Your task to perform on an android device: Do I have any events today? Image 0: 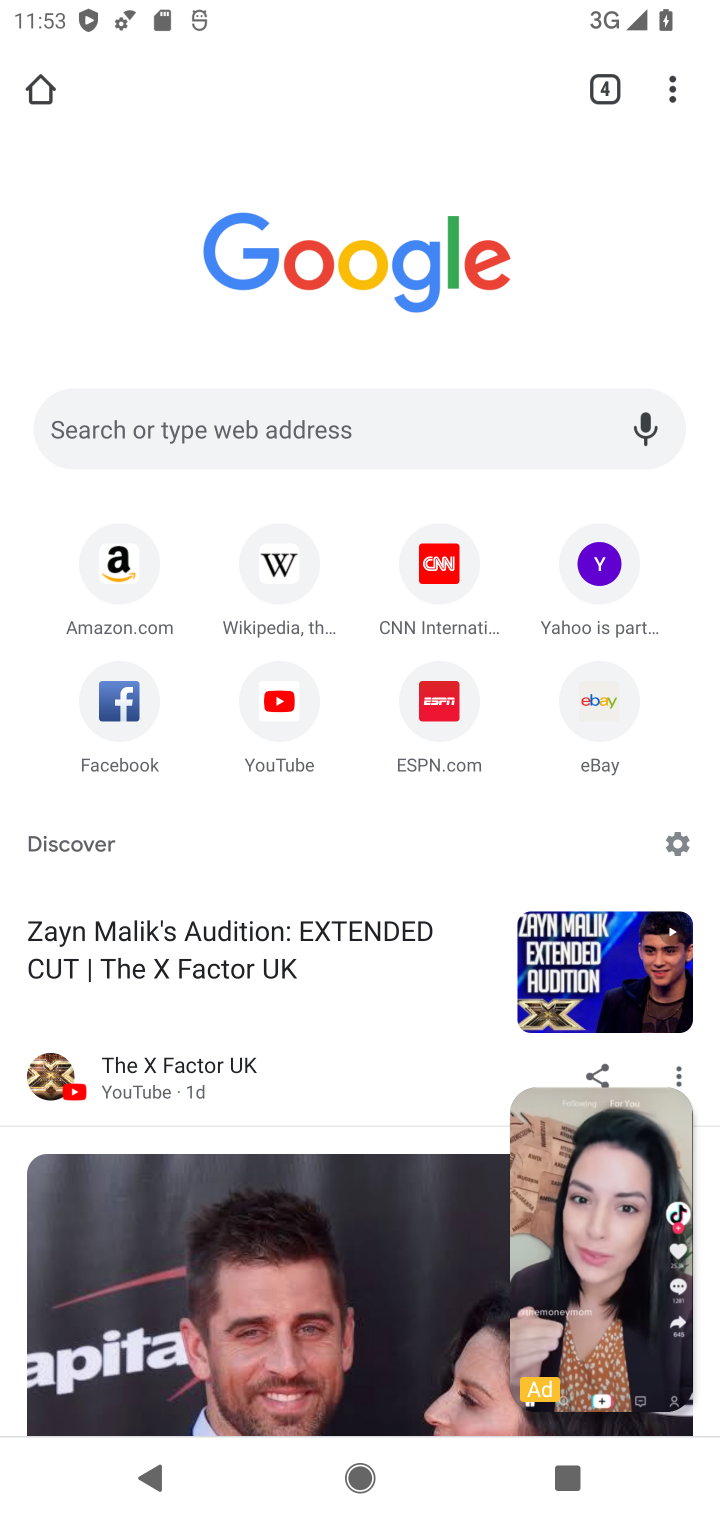
Step 0: click (664, 1205)
Your task to perform on an android device: Do I have any events today? Image 1: 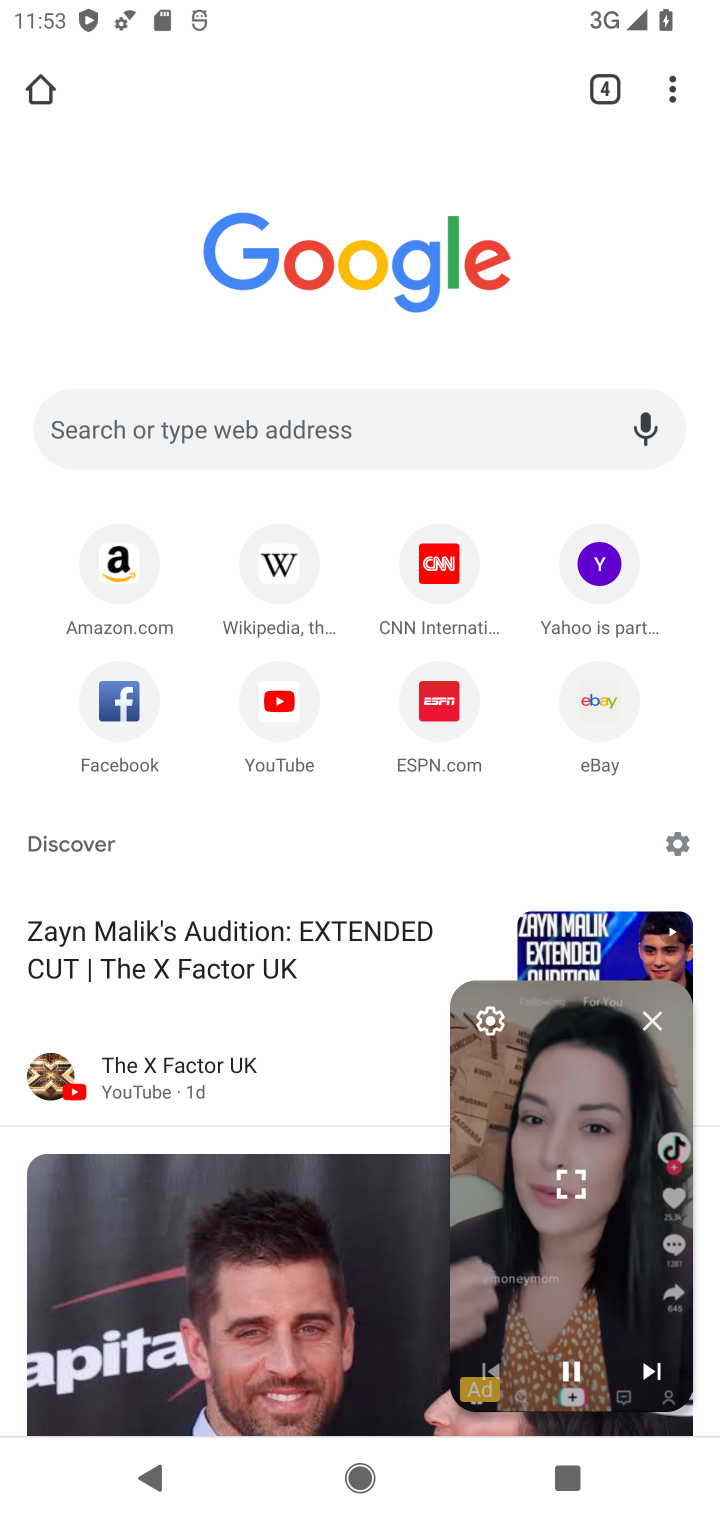
Step 1: click (649, 1014)
Your task to perform on an android device: Do I have any events today? Image 2: 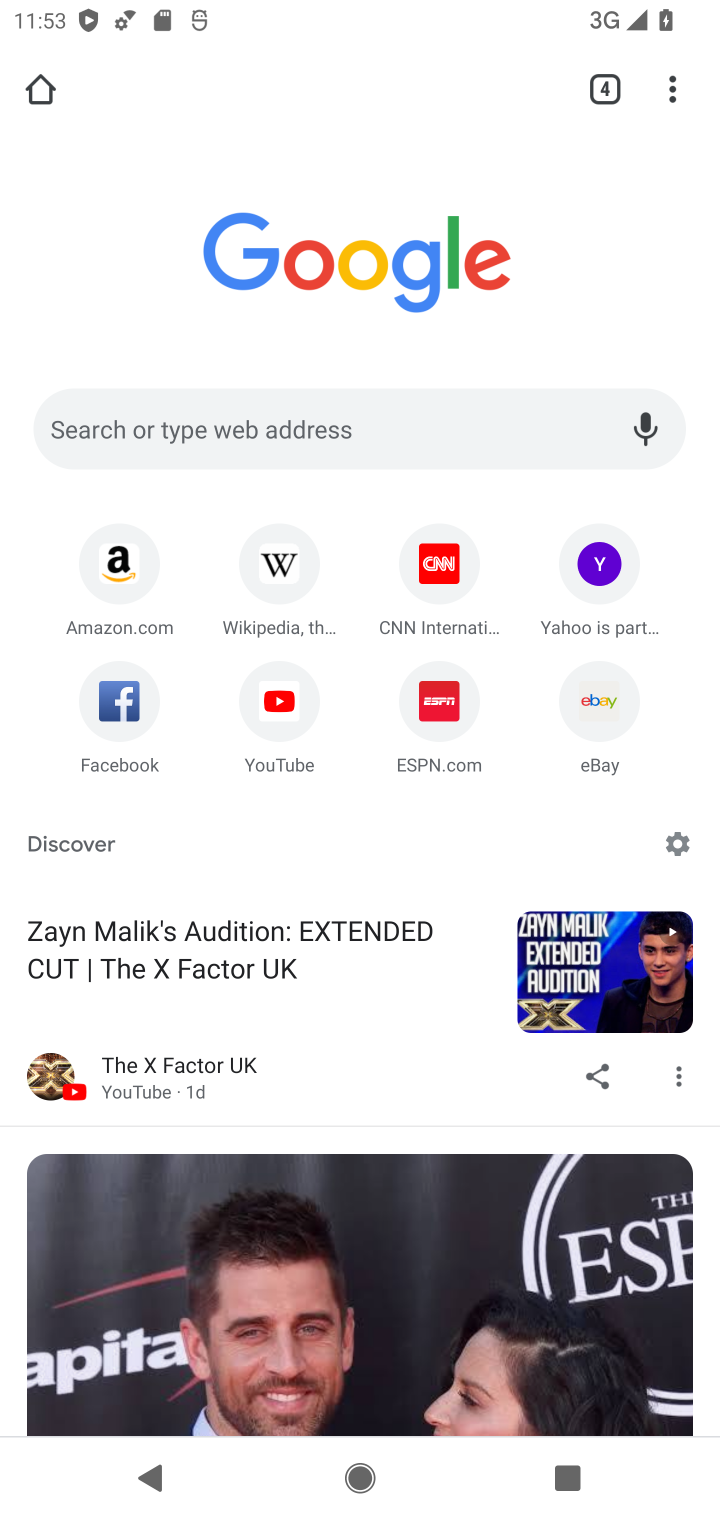
Step 2: press home button
Your task to perform on an android device: Do I have any events today? Image 3: 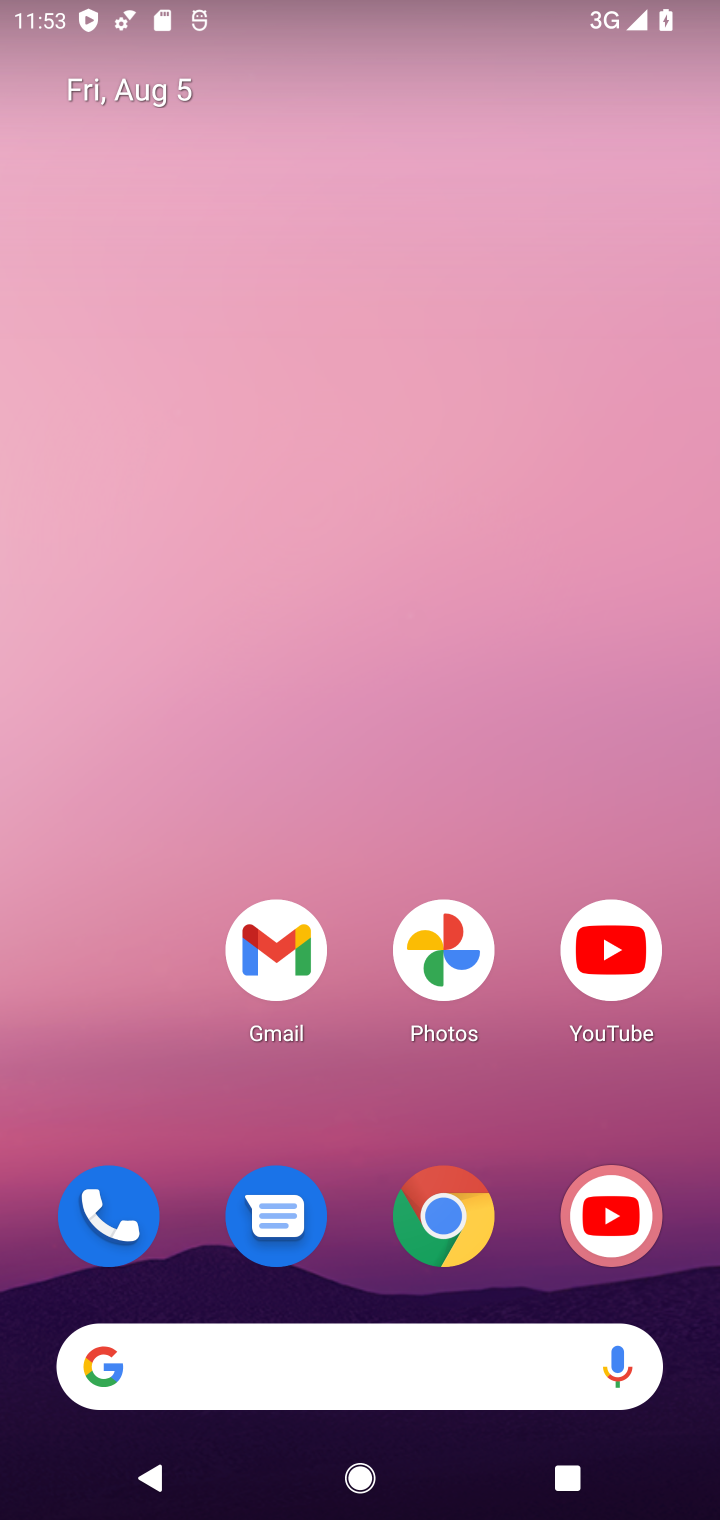
Step 3: drag from (400, 1350) to (362, 7)
Your task to perform on an android device: Do I have any events today? Image 4: 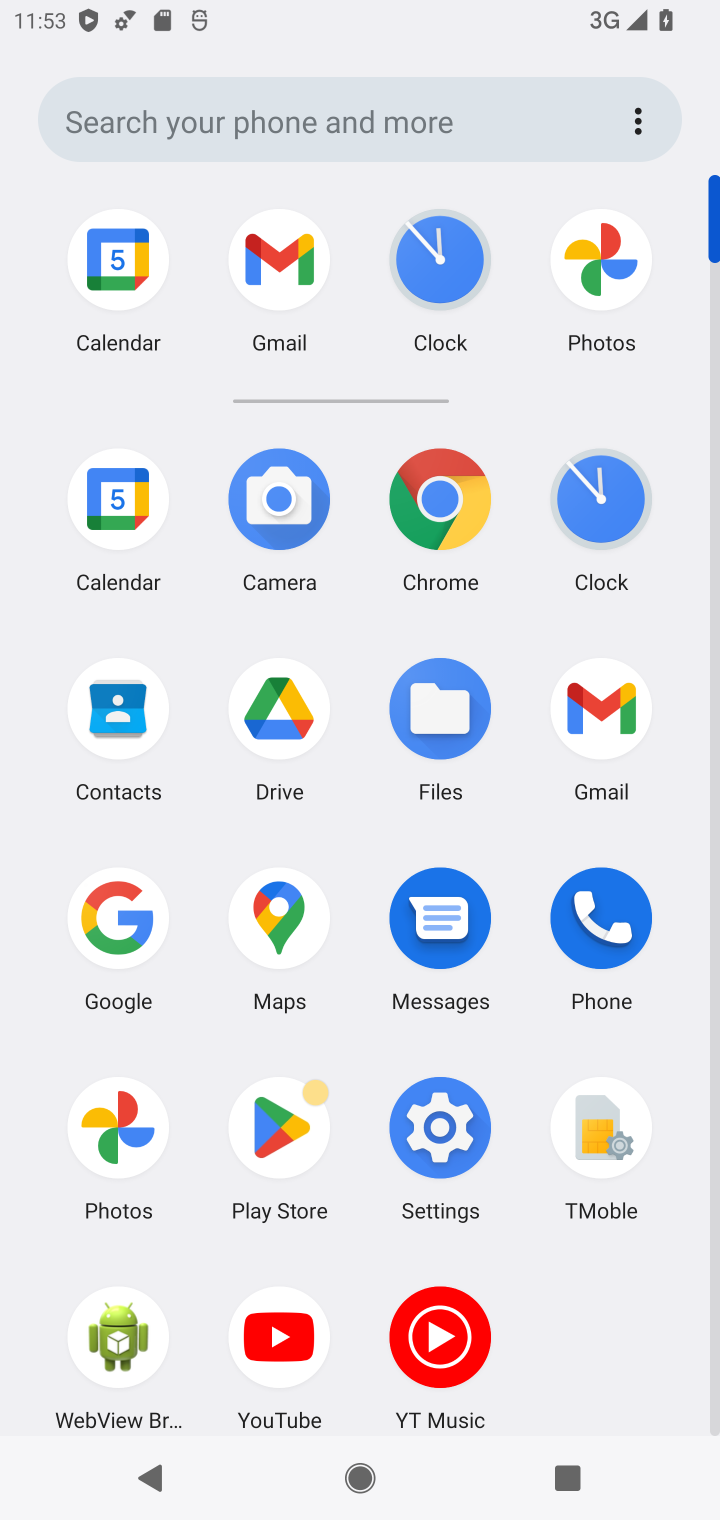
Step 4: click (103, 519)
Your task to perform on an android device: Do I have any events today? Image 5: 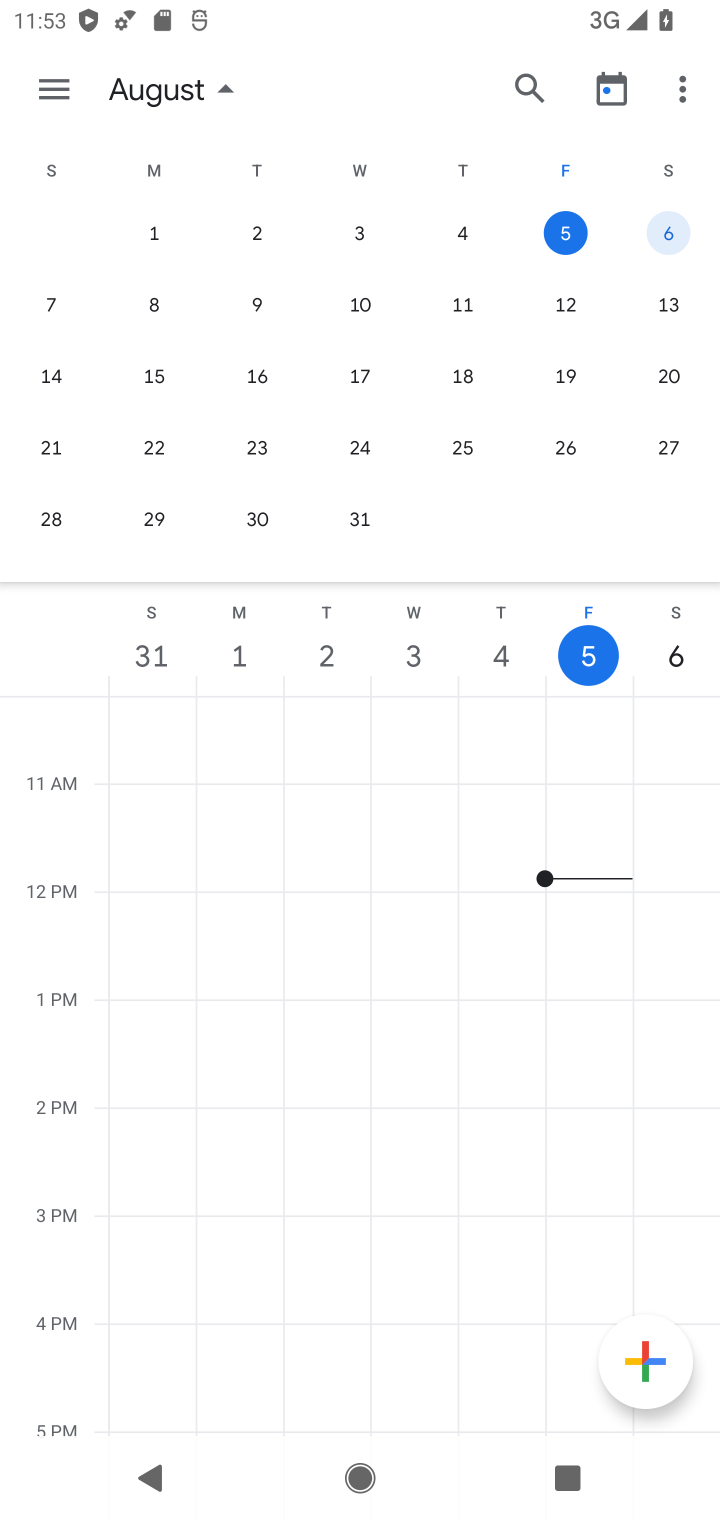
Step 5: click (577, 233)
Your task to perform on an android device: Do I have any events today? Image 6: 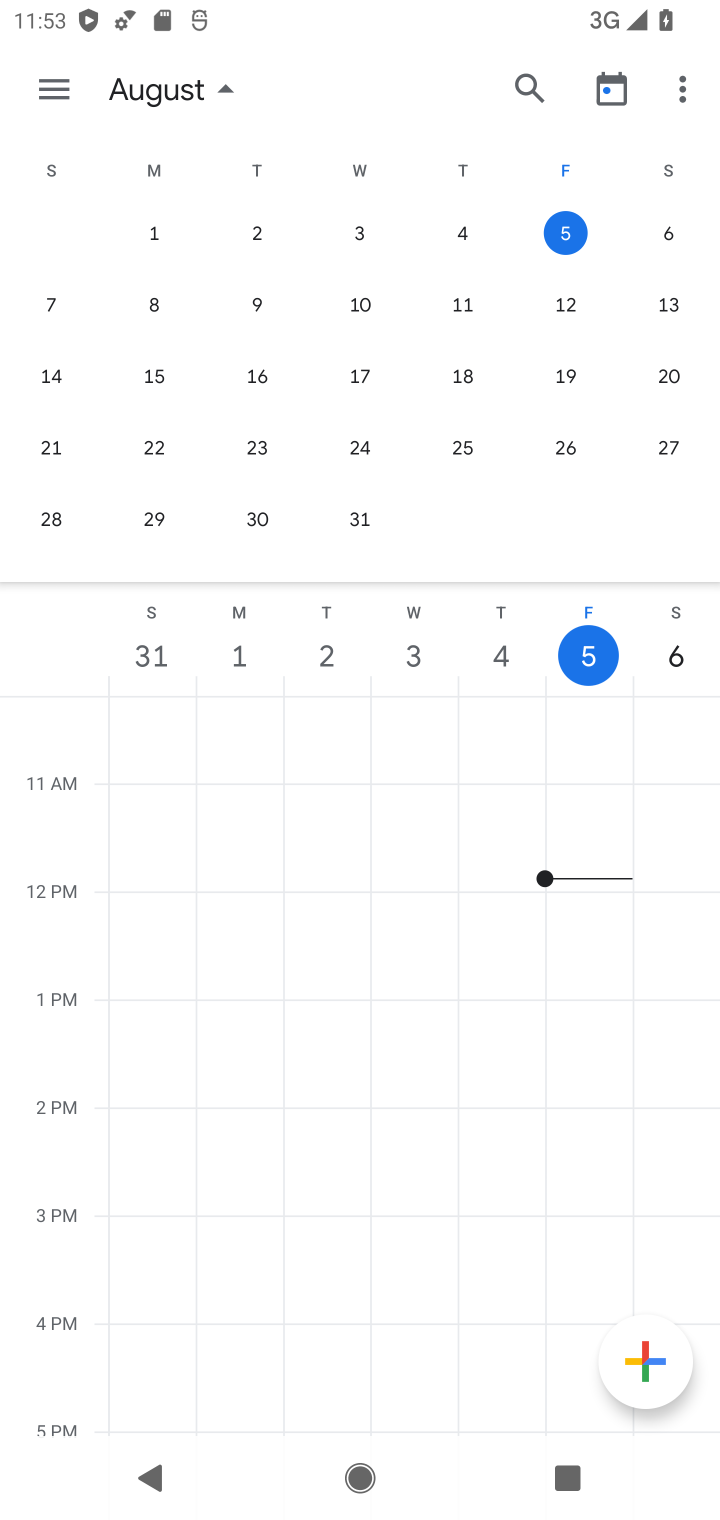
Step 6: click (577, 233)
Your task to perform on an android device: Do I have any events today? Image 7: 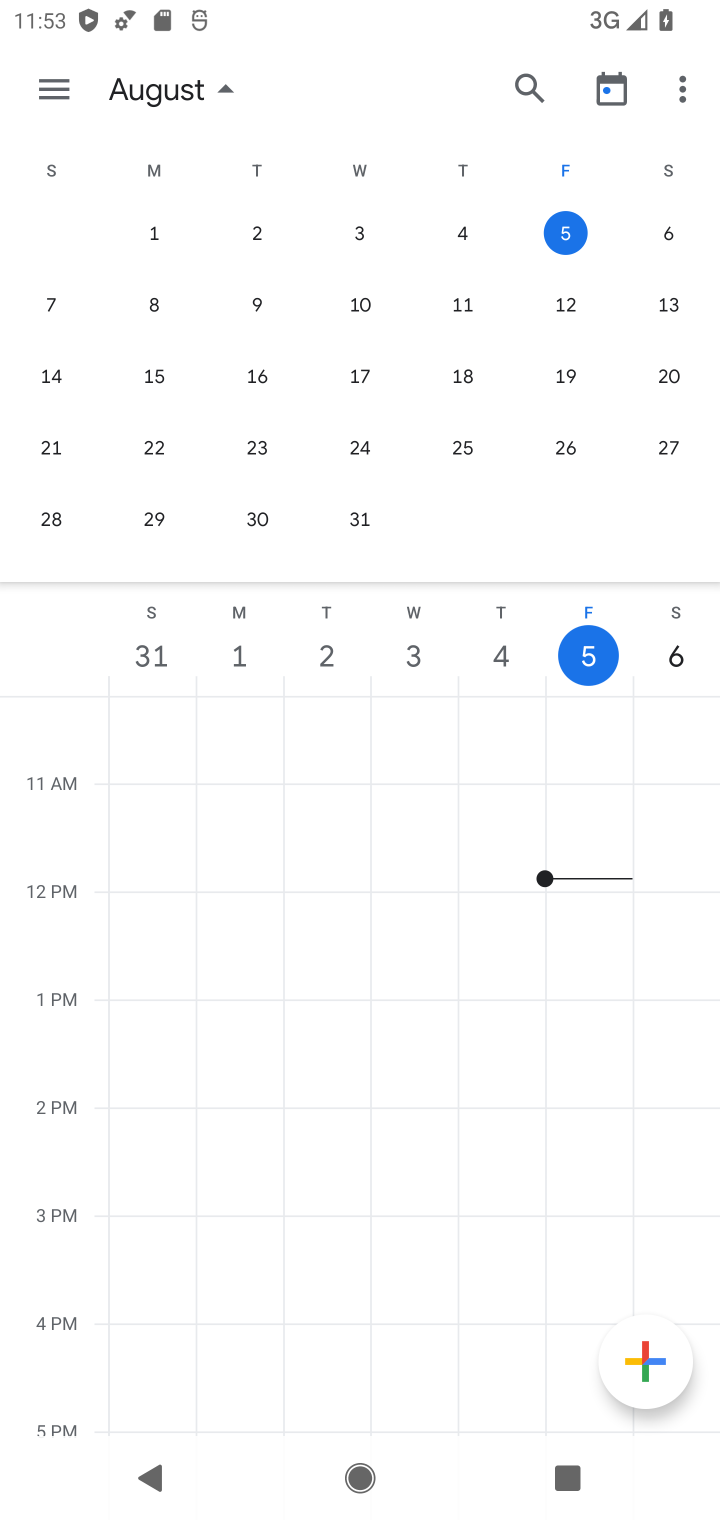
Step 7: click (596, 646)
Your task to perform on an android device: Do I have any events today? Image 8: 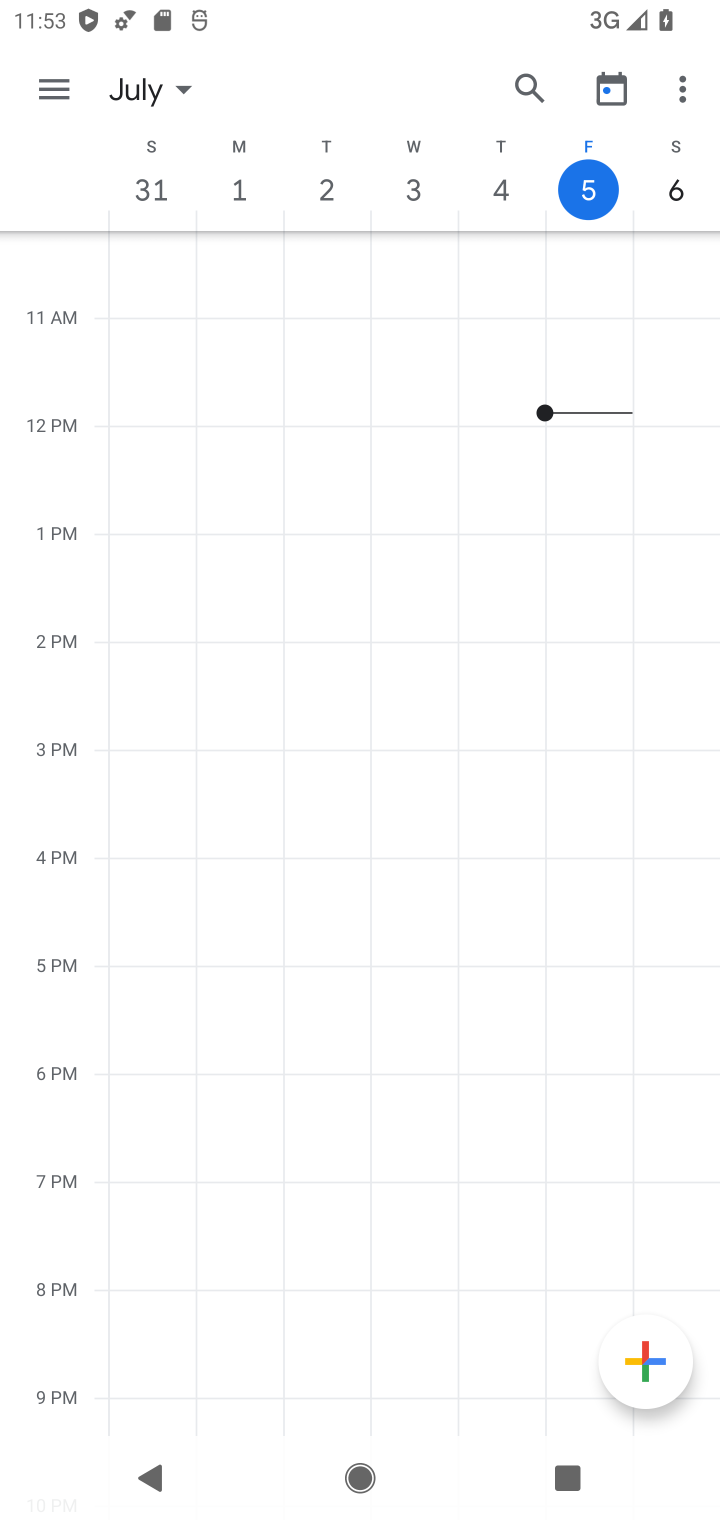
Step 8: task complete